Your task to perform on an android device: Open calendar and show me the second week of next month Image 0: 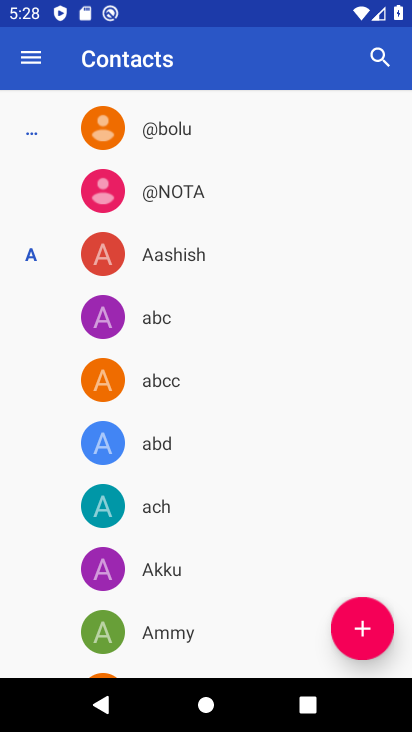
Step 0: press home button
Your task to perform on an android device: Open calendar and show me the second week of next month Image 1: 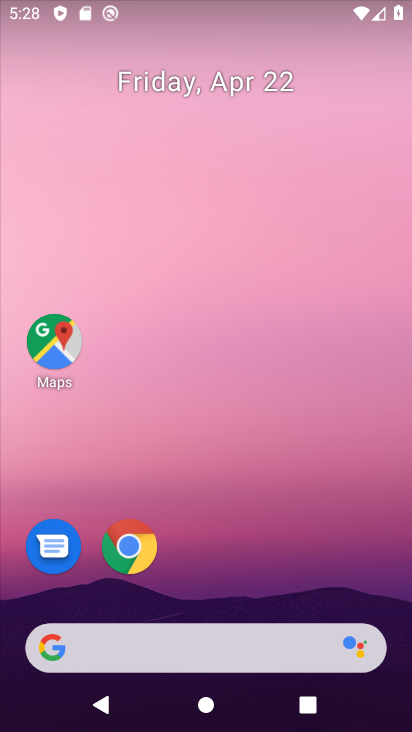
Step 1: drag from (243, 475) to (254, 4)
Your task to perform on an android device: Open calendar and show me the second week of next month Image 2: 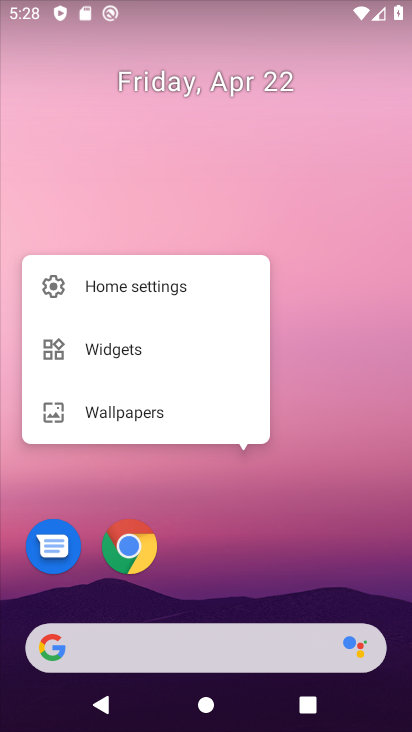
Step 2: drag from (297, 530) to (258, 9)
Your task to perform on an android device: Open calendar and show me the second week of next month Image 3: 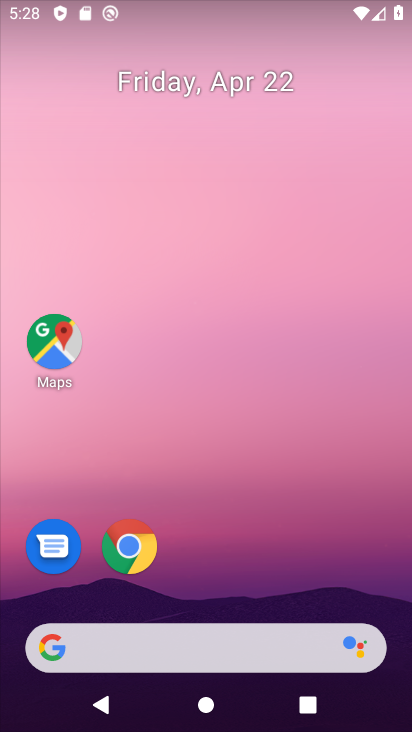
Step 3: drag from (264, 586) to (199, 37)
Your task to perform on an android device: Open calendar and show me the second week of next month Image 4: 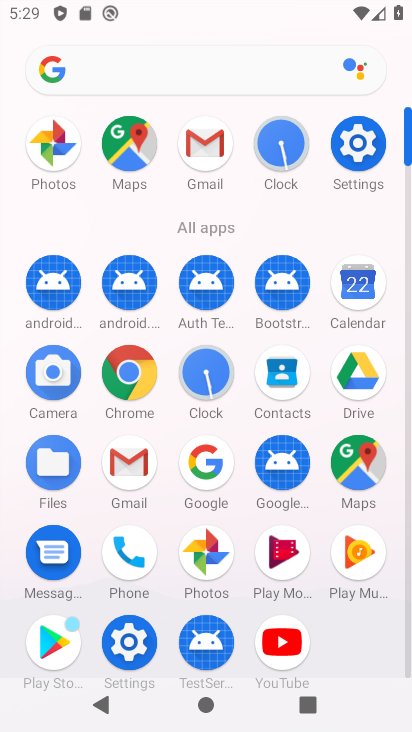
Step 4: click (339, 307)
Your task to perform on an android device: Open calendar and show me the second week of next month Image 5: 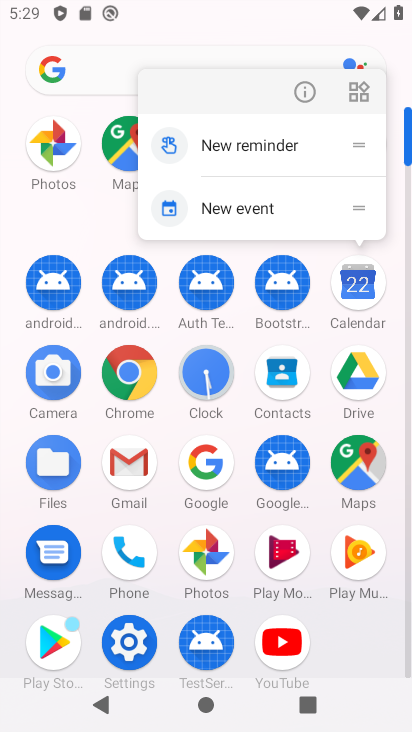
Step 5: click (351, 295)
Your task to perform on an android device: Open calendar and show me the second week of next month Image 6: 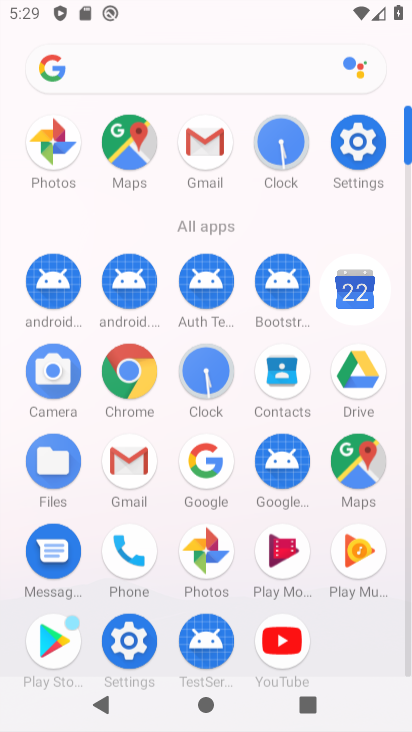
Step 6: click (356, 292)
Your task to perform on an android device: Open calendar and show me the second week of next month Image 7: 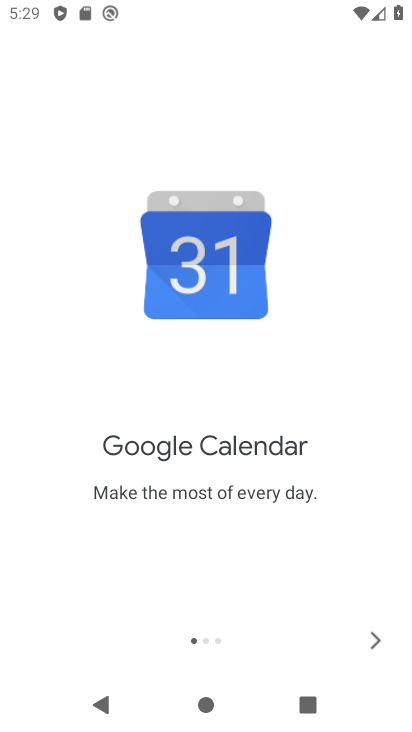
Step 7: click (382, 645)
Your task to perform on an android device: Open calendar and show me the second week of next month Image 8: 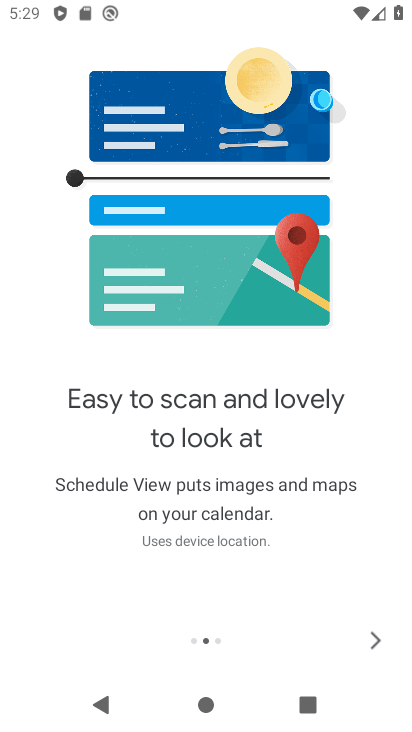
Step 8: click (370, 643)
Your task to perform on an android device: Open calendar and show me the second week of next month Image 9: 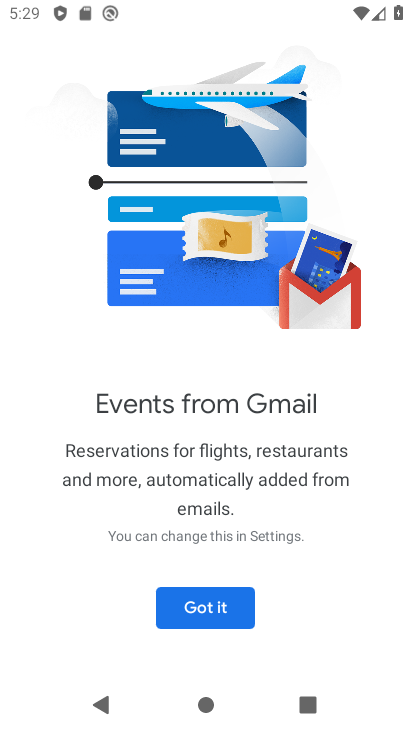
Step 9: click (201, 608)
Your task to perform on an android device: Open calendar and show me the second week of next month Image 10: 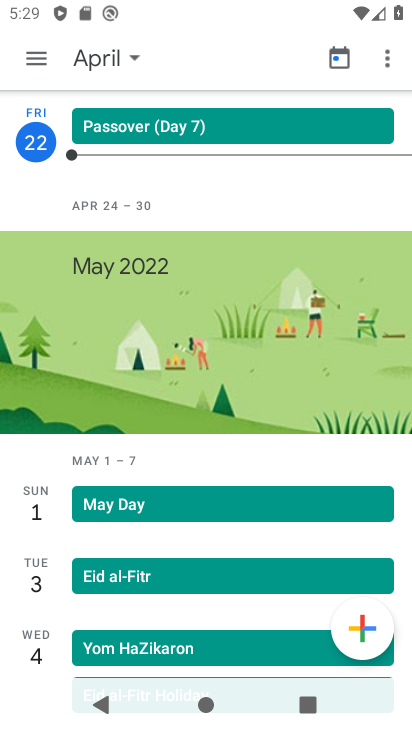
Step 10: click (87, 64)
Your task to perform on an android device: Open calendar and show me the second week of next month Image 11: 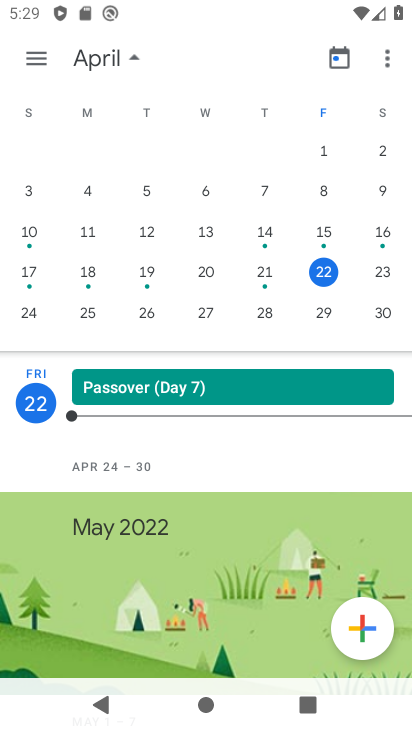
Step 11: drag from (350, 224) to (5, 247)
Your task to perform on an android device: Open calendar and show me the second week of next month Image 12: 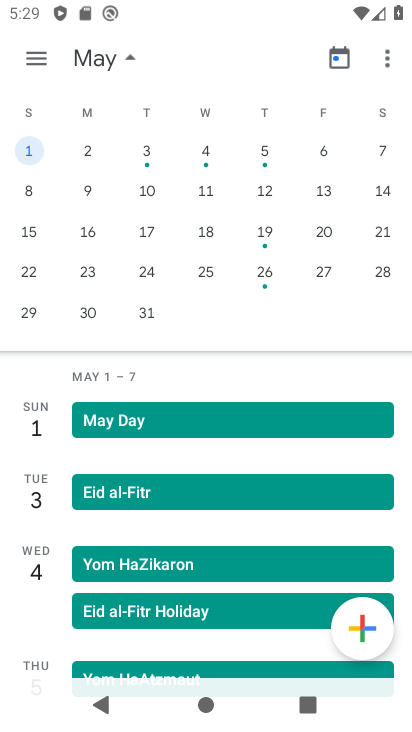
Step 12: click (32, 195)
Your task to perform on an android device: Open calendar and show me the second week of next month Image 13: 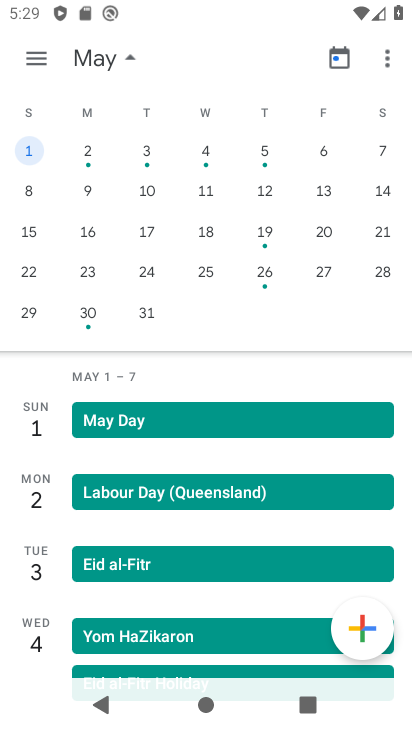
Step 13: click (32, 195)
Your task to perform on an android device: Open calendar and show me the second week of next month Image 14: 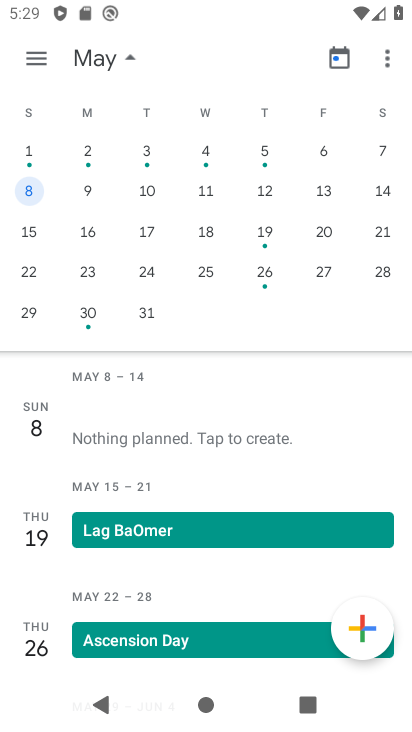
Step 14: click (37, 56)
Your task to perform on an android device: Open calendar and show me the second week of next month Image 15: 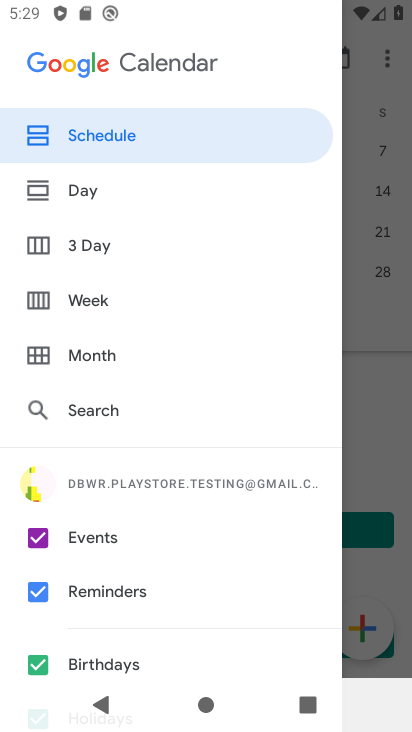
Step 15: click (94, 303)
Your task to perform on an android device: Open calendar and show me the second week of next month Image 16: 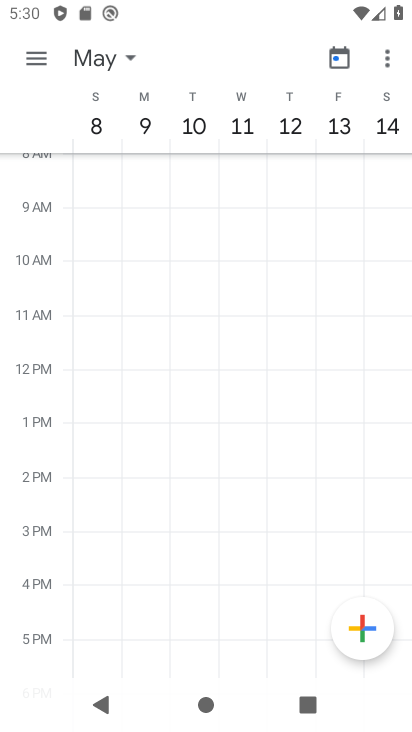
Step 16: task complete